Your task to perform on an android device: turn off airplane mode Image 0: 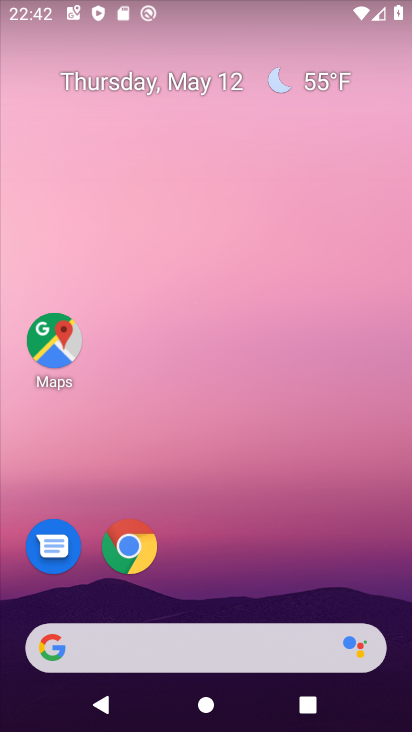
Step 0: drag from (195, 461) to (201, 178)
Your task to perform on an android device: turn off airplane mode Image 1: 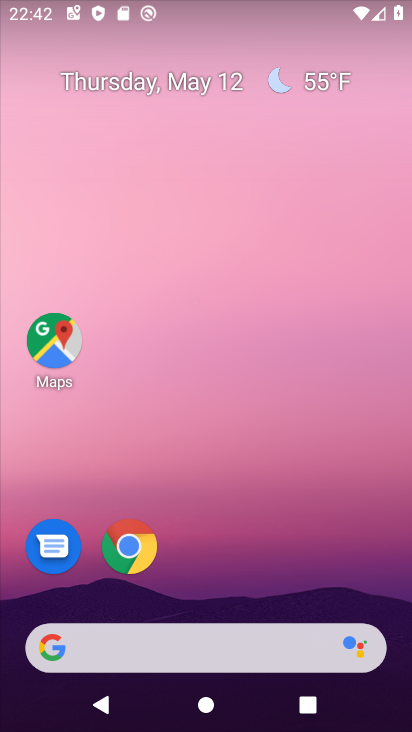
Step 1: drag from (215, 609) to (292, 100)
Your task to perform on an android device: turn off airplane mode Image 2: 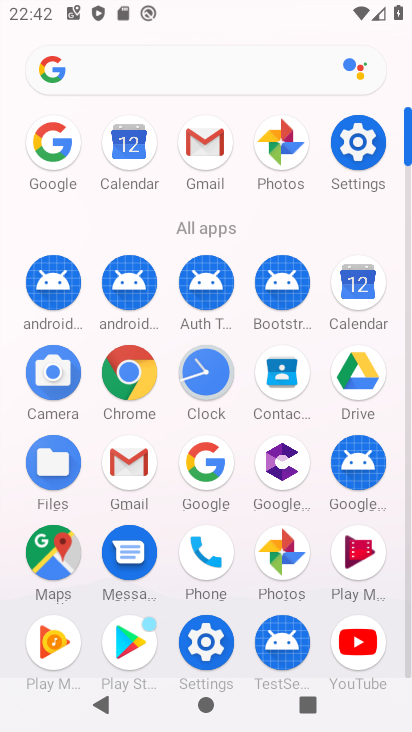
Step 2: click (358, 147)
Your task to perform on an android device: turn off airplane mode Image 3: 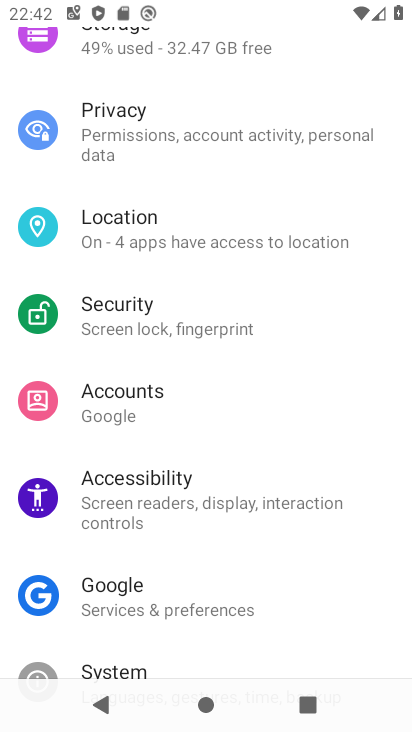
Step 3: drag from (229, 103) to (240, 553)
Your task to perform on an android device: turn off airplane mode Image 4: 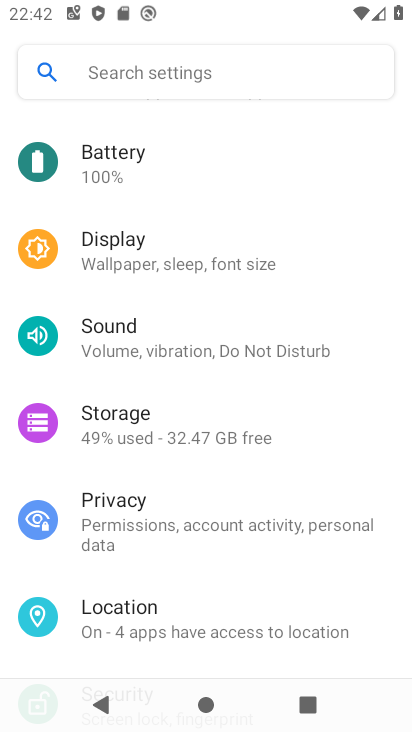
Step 4: drag from (201, 157) to (291, 623)
Your task to perform on an android device: turn off airplane mode Image 5: 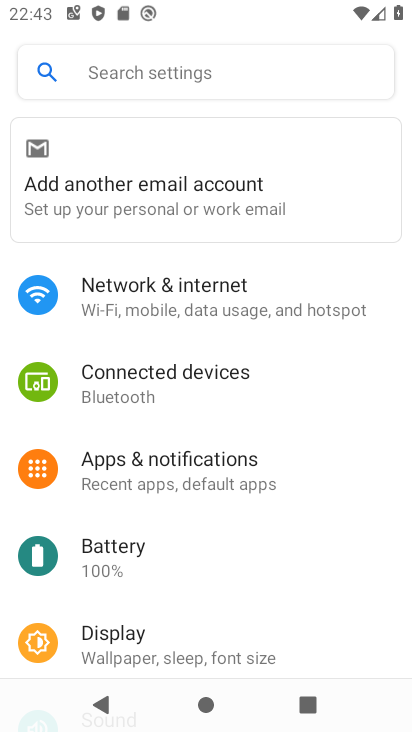
Step 5: click (227, 300)
Your task to perform on an android device: turn off airplane mode Image 6: 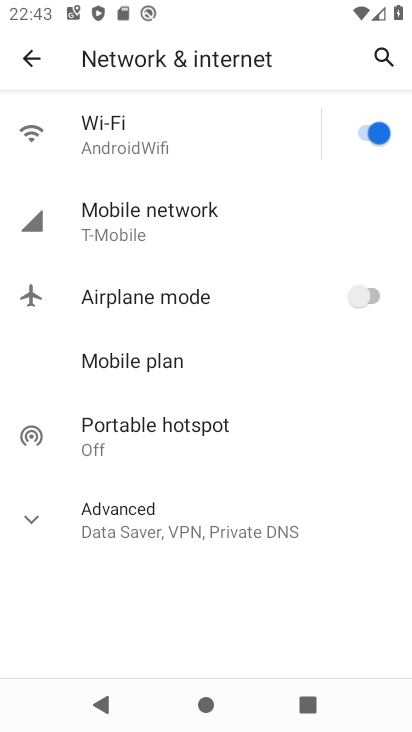
Step 6: task complete